Your task to perform on an android device: Go to CNN.com Image 0: 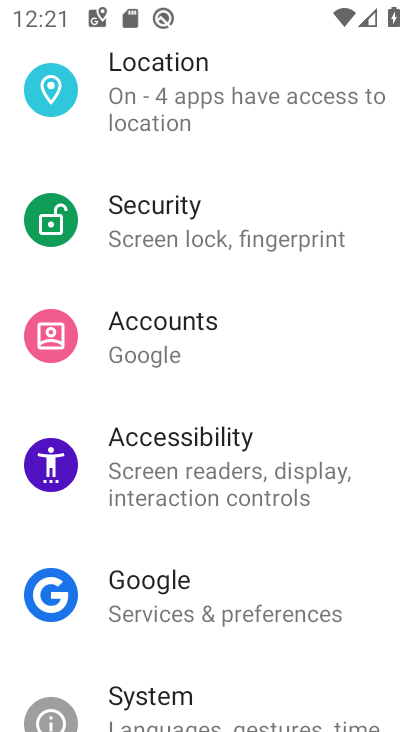
Step 0: press home button
Your task to perform on an android device: Go to CNN.com Image 1: 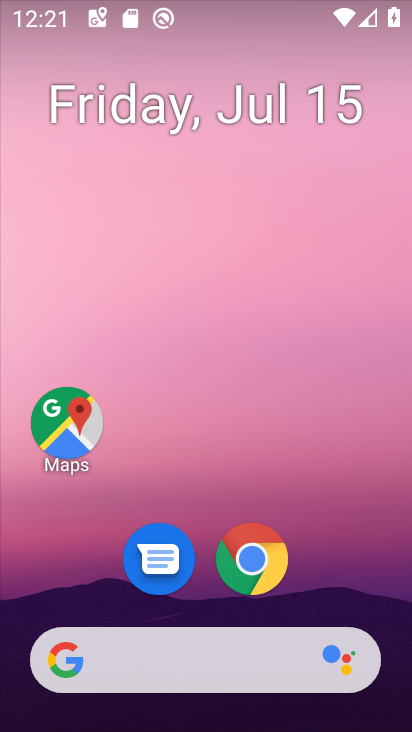
Step 1: drag from (363, 552) to (360, 109)
Your task to perform on an android device: Go to CNN.com Image 2: 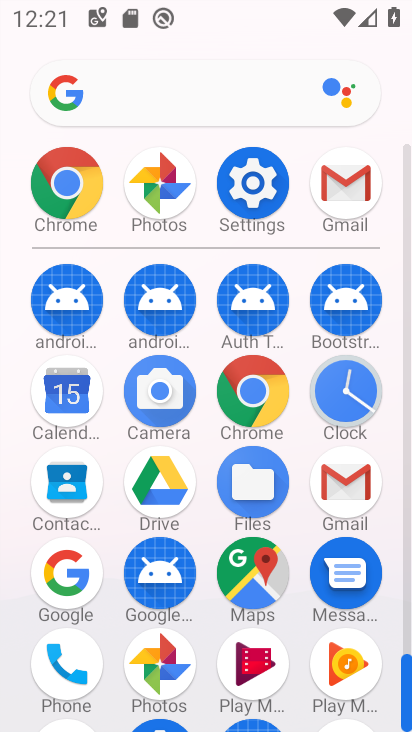
Step 2: click (262, 394)
Your task to perform on an android device: Go to CNN.com Image 3: 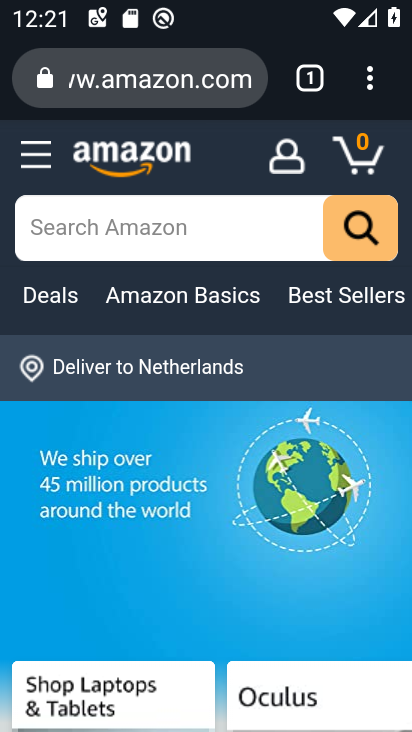
Step 3: click (172, 88)
Your task to perform on an android device: Go to CNN.com Image 4: 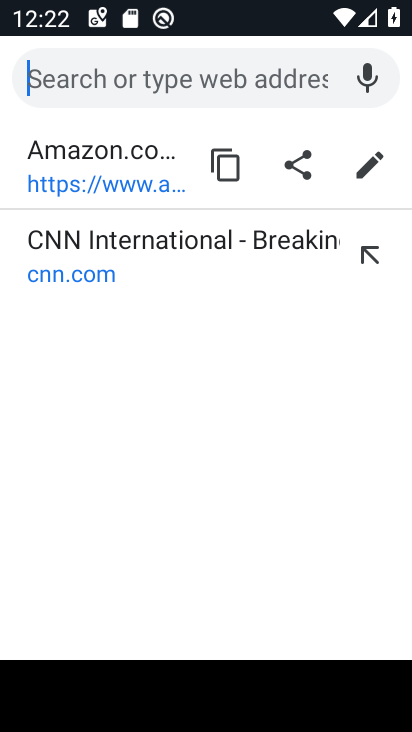
Step 4: type "cnn.com"
Your task to perform on an android device: Go to CNN.com Image 5: 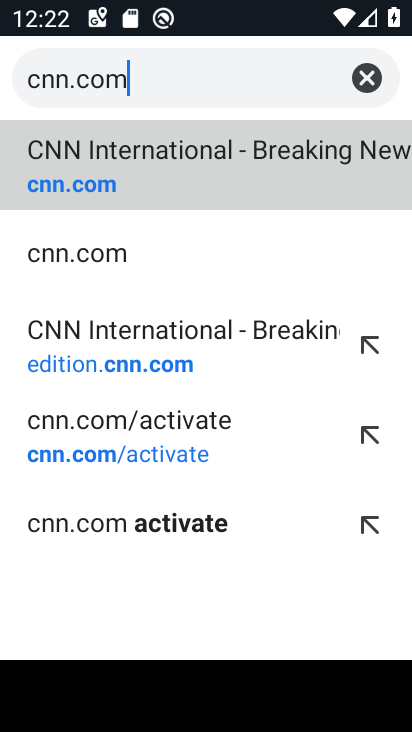
Step 5: click (234, 177)
Your task to perform on an android device: Go to CNN.com Image 6: 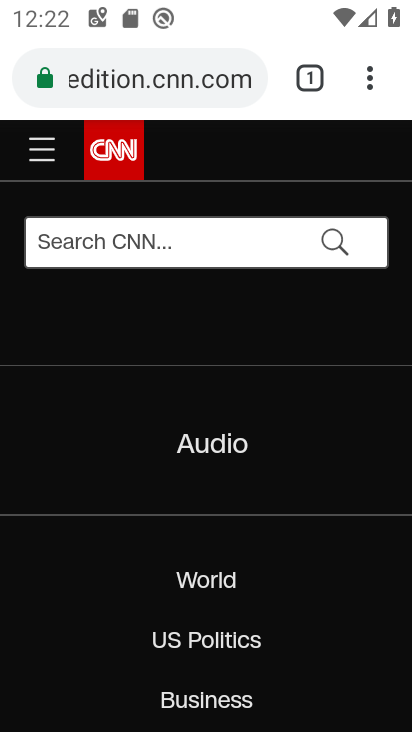
Step 6: task complete